Your task to perform on an android device: Open network settings Image 0: 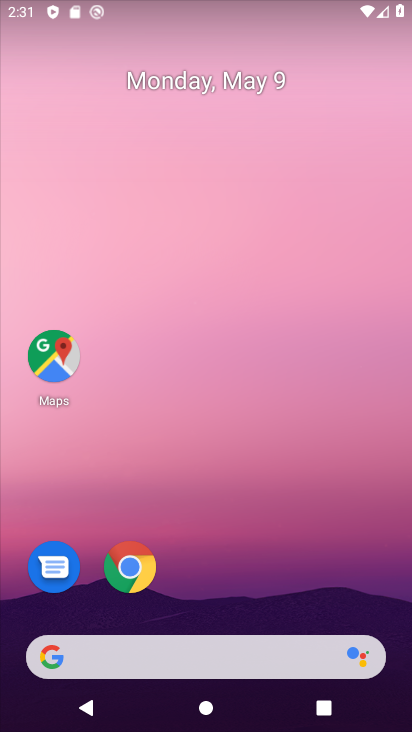
Step 0: drag from (242, 578) to (224, 260)
Your task to perform on an android device: Open network settings Image 1: 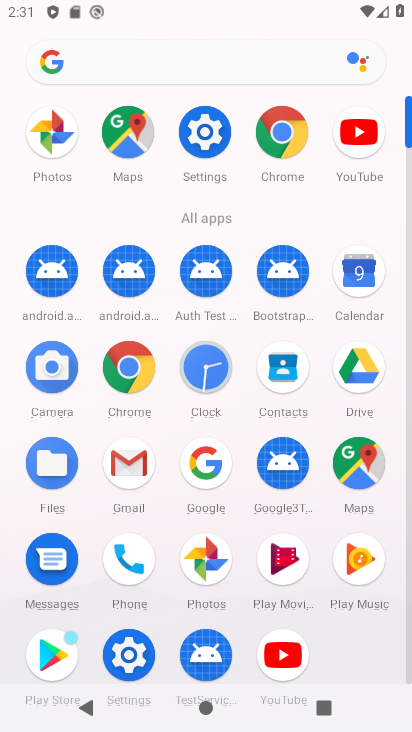
Step 1: click (208, 143)
Your task to perform on an android device: Open network settings Image 2: 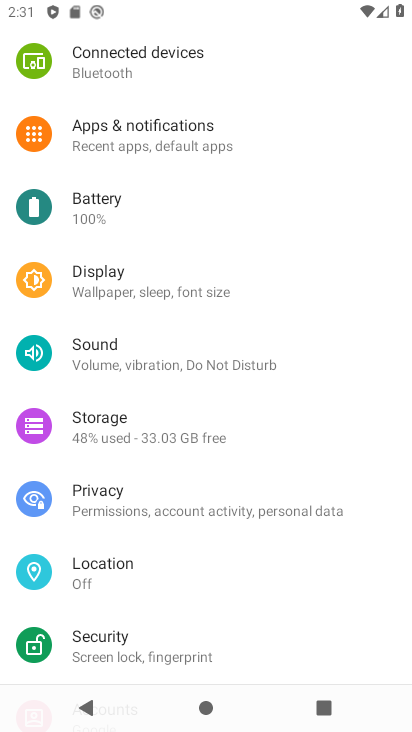
Step 2: drag from (319, 102) to (309, 310)
Your task to perform on an android device: Open network settings Image 3: 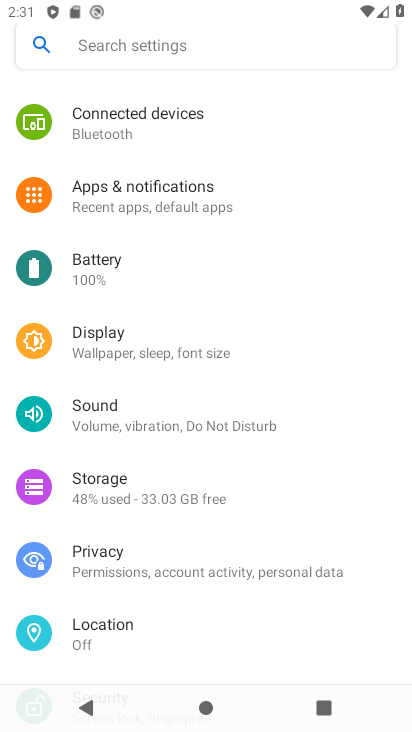
Step 3: drag from (263, 143) to (279, 401)
Your task to perform on an android device: Open network settings Image 4: 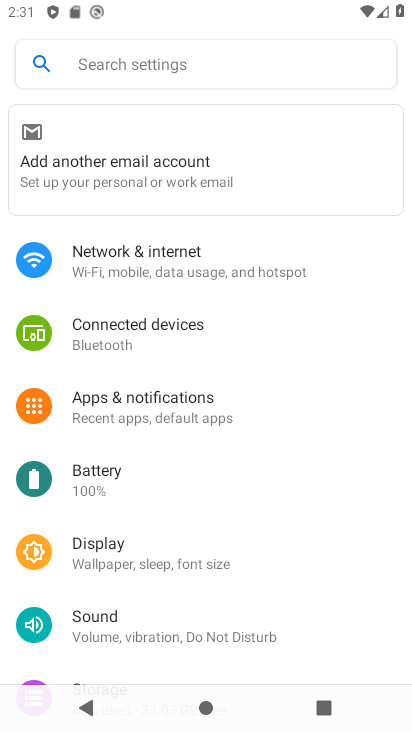
Step 4: click (171, 281)
Your task to perform on an android device: Open network settings Image 5: 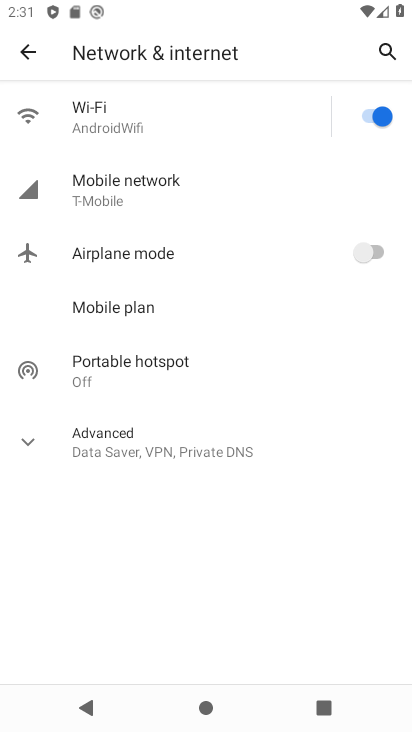
Step 5: task complete